Your task to perform on an android device: Clear the cart on ebay. Search for "dell alienware" on ebay, select the first entry, add it to the cart, then select checkout. Image 0: 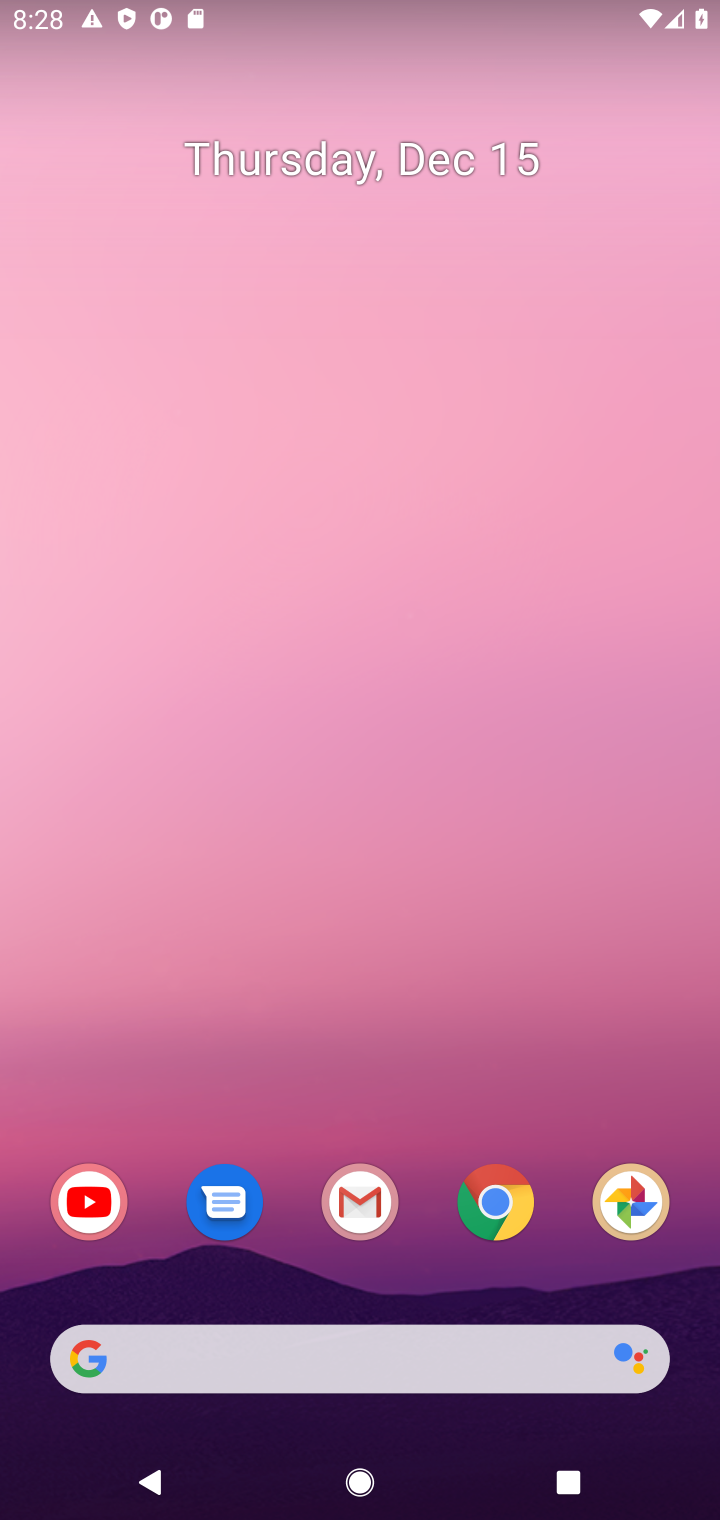
Step 0: click (493, 1218)
Your task to perform on an android device: Clear the cart on ebay. Search for "dell alienware" on ebay, select the first entry, add it to the cart, then select checkout. Image 1: 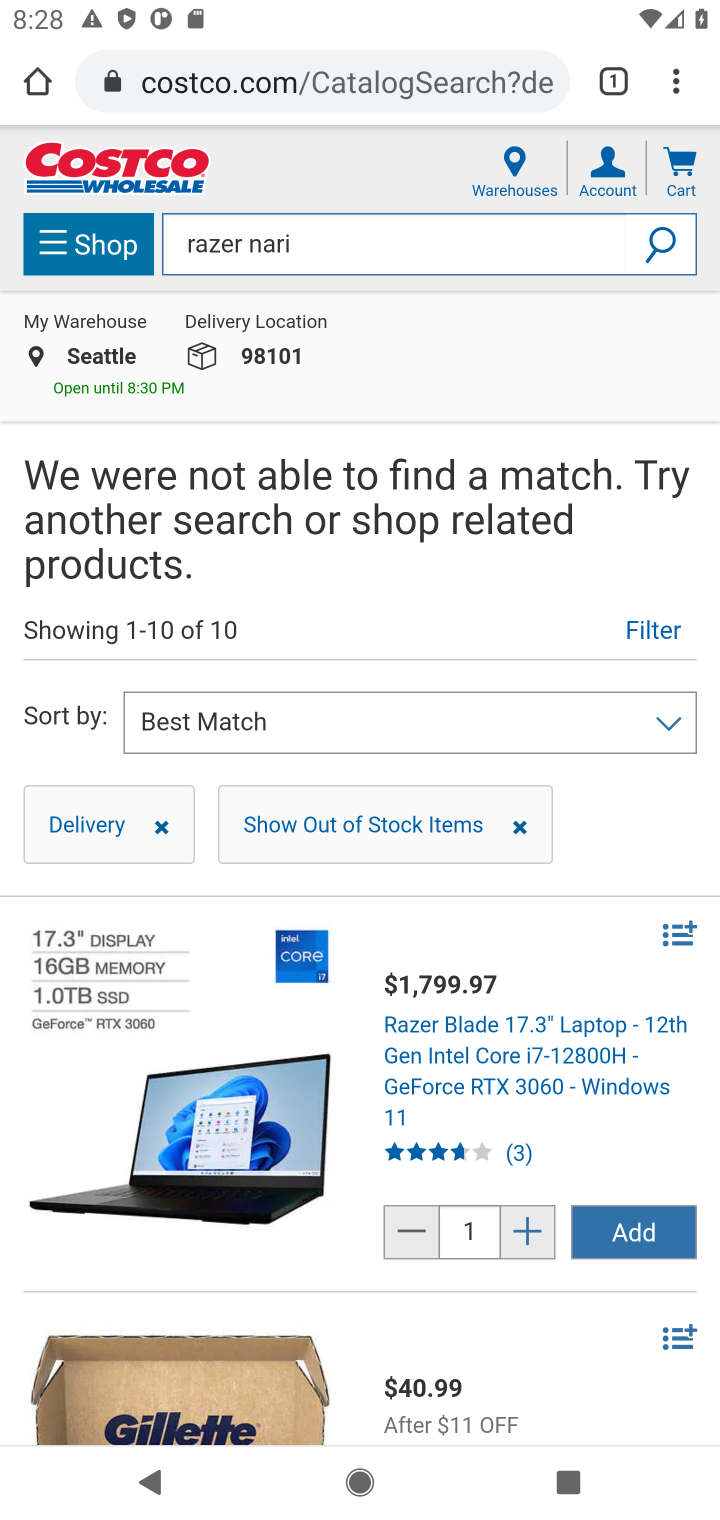
Step 1: click (321, 77)
Your task to perform on an android device: Clear the cart on ebay. Search for "dell alienware" on ebay, select the first entry, add it to the cart, then select checkout. Image 2: 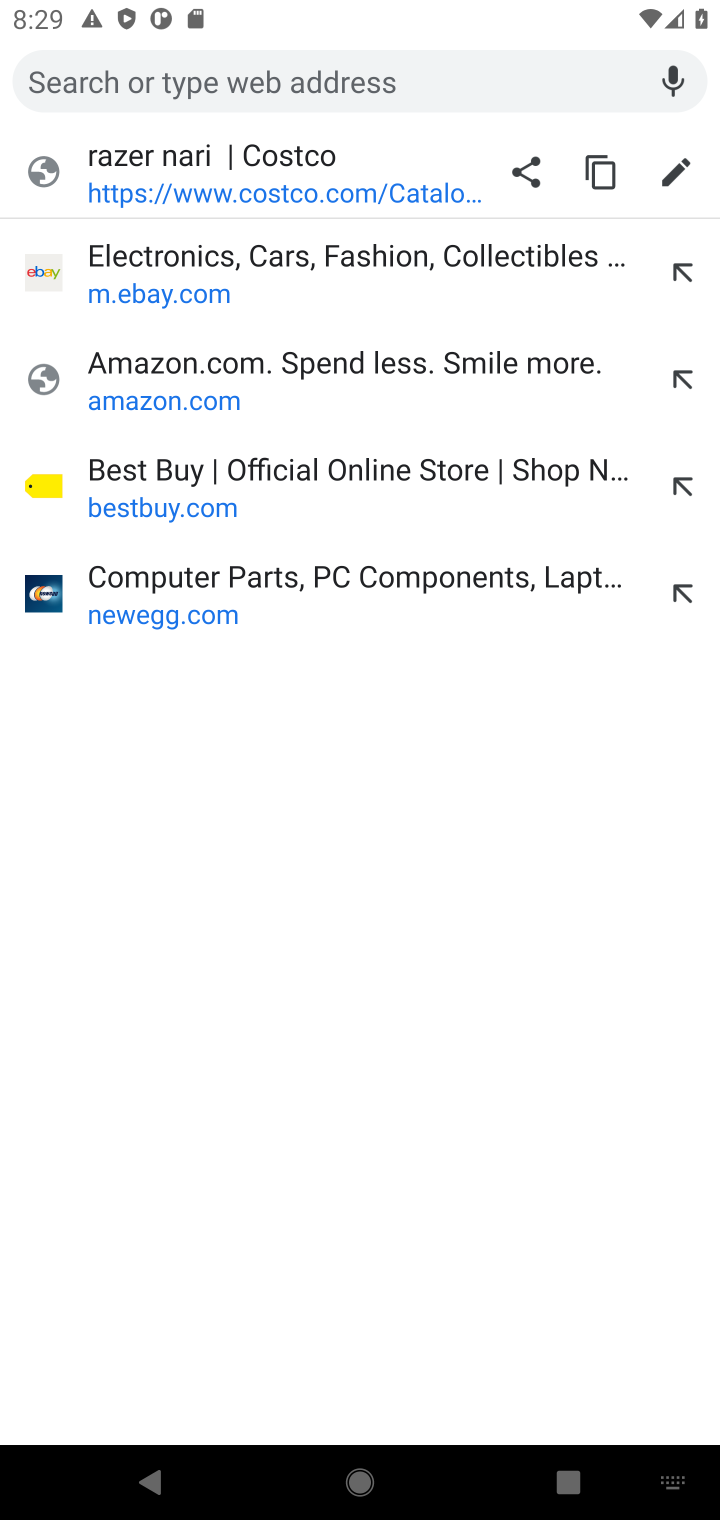
Step 2: click (153, 287)
Your task to perform on an android device: Clear the cart on ebay. Search for "dell alienware" on ebay, select the first entry, add it to the cart, then select checkout. Image 3: 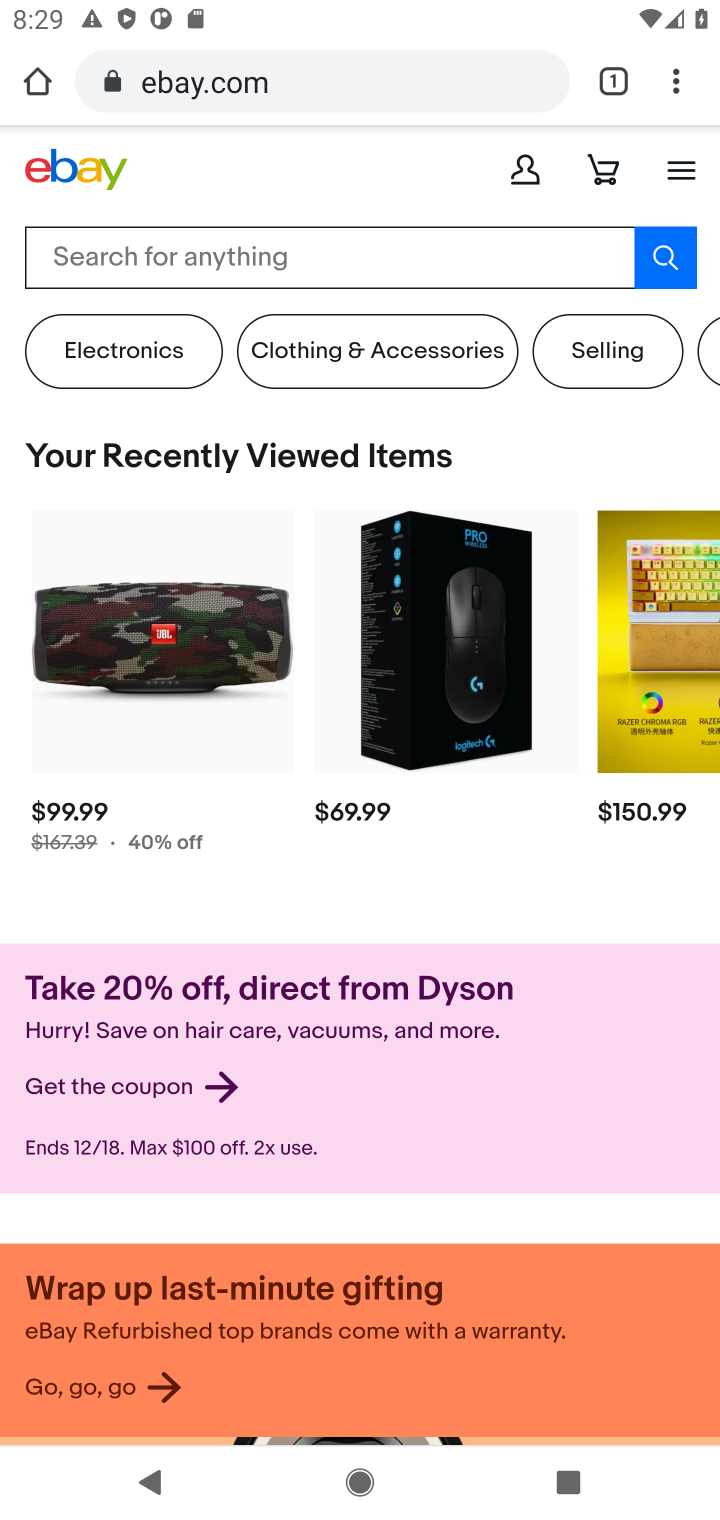
Step 3: click (606, 161)
Your task to perform on an android device: Clear the cart on ebay. Search for "dell alienware" on ebay, select the first entry, add it to the cart, then select checkout. Image 4: 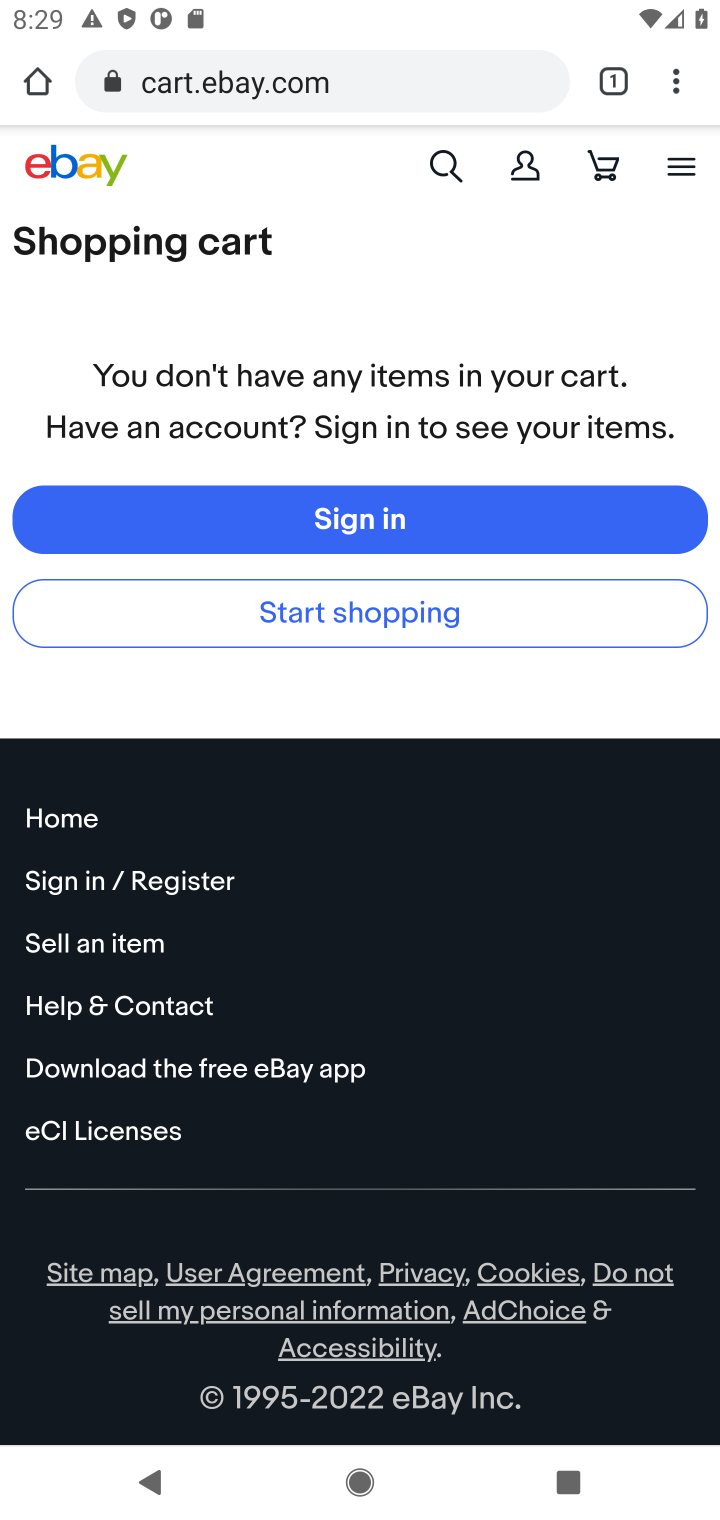
Step 4: click (440, 163)
Your task to perform on an android device: Clear the cart on ebay. Search for "dell alienware" on ebay, select the first entry, add it to the cart, then select checkout. Image 5: 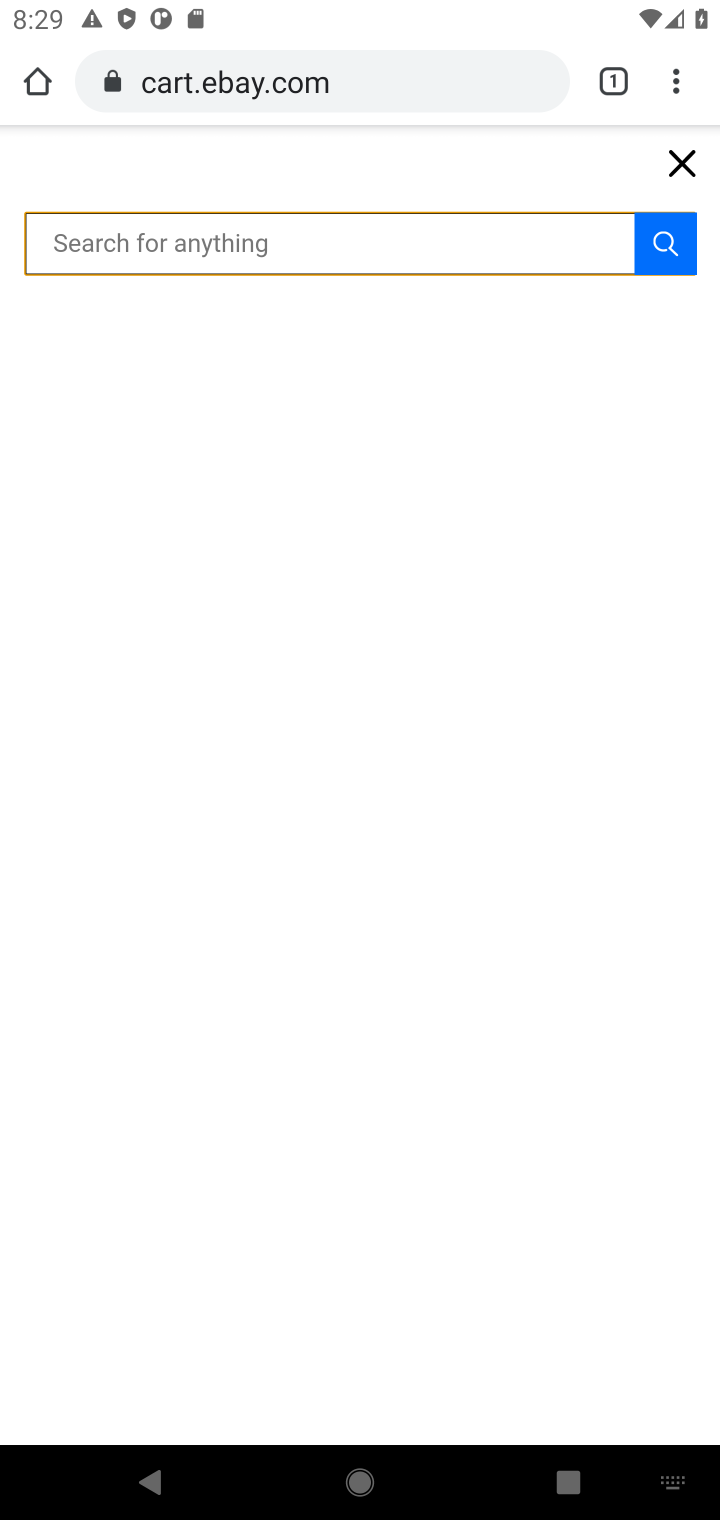
Step 5: type "dell alienware"
Your task to perform on an android device: Clear the cart on ebay. Search for "dell alienware" on ebay, select the first entry, add it to the cart, then select checkout. Image 6: 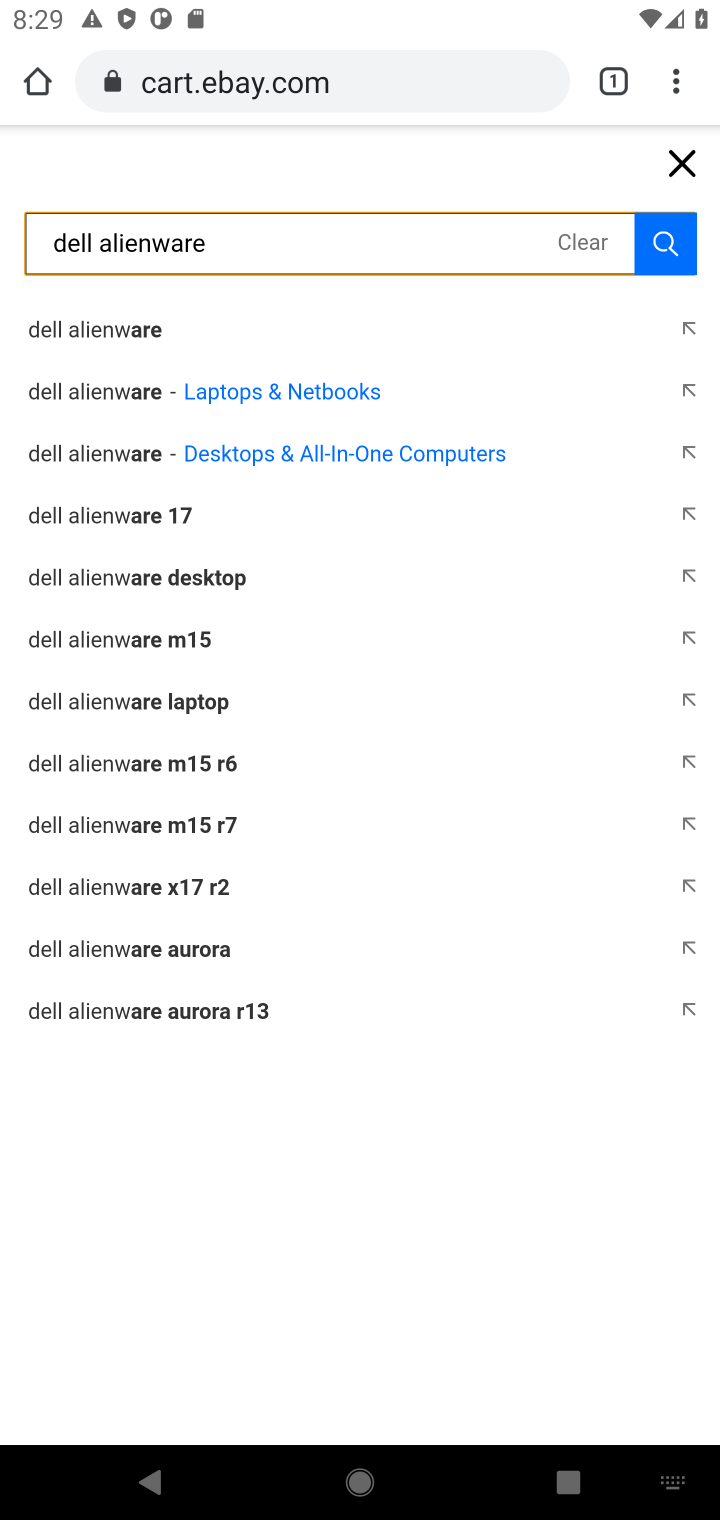
Step 6: click (108, 327)
Your task to perform on an android device: Clear the cart on ebay. Search for "dell alienware" on ebay, select the first entry, add it to the cart, then select checkout. Image 7: 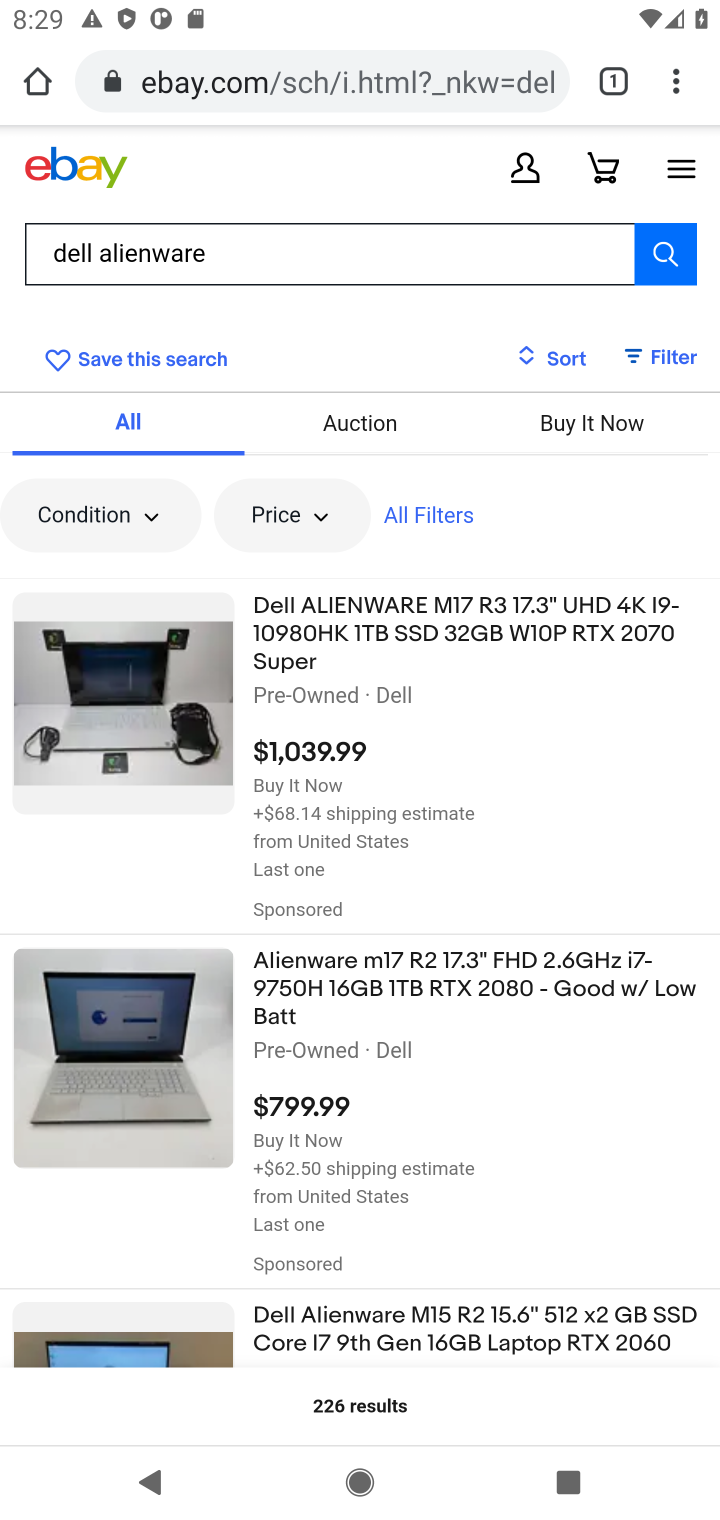
Step 7: click (343, 631)
Your task to perform on an android device: Clear the cart on ebay. Search for "dell alienware" on ebay, select the first entry, add it to the cart, then select checkout. Image 8: 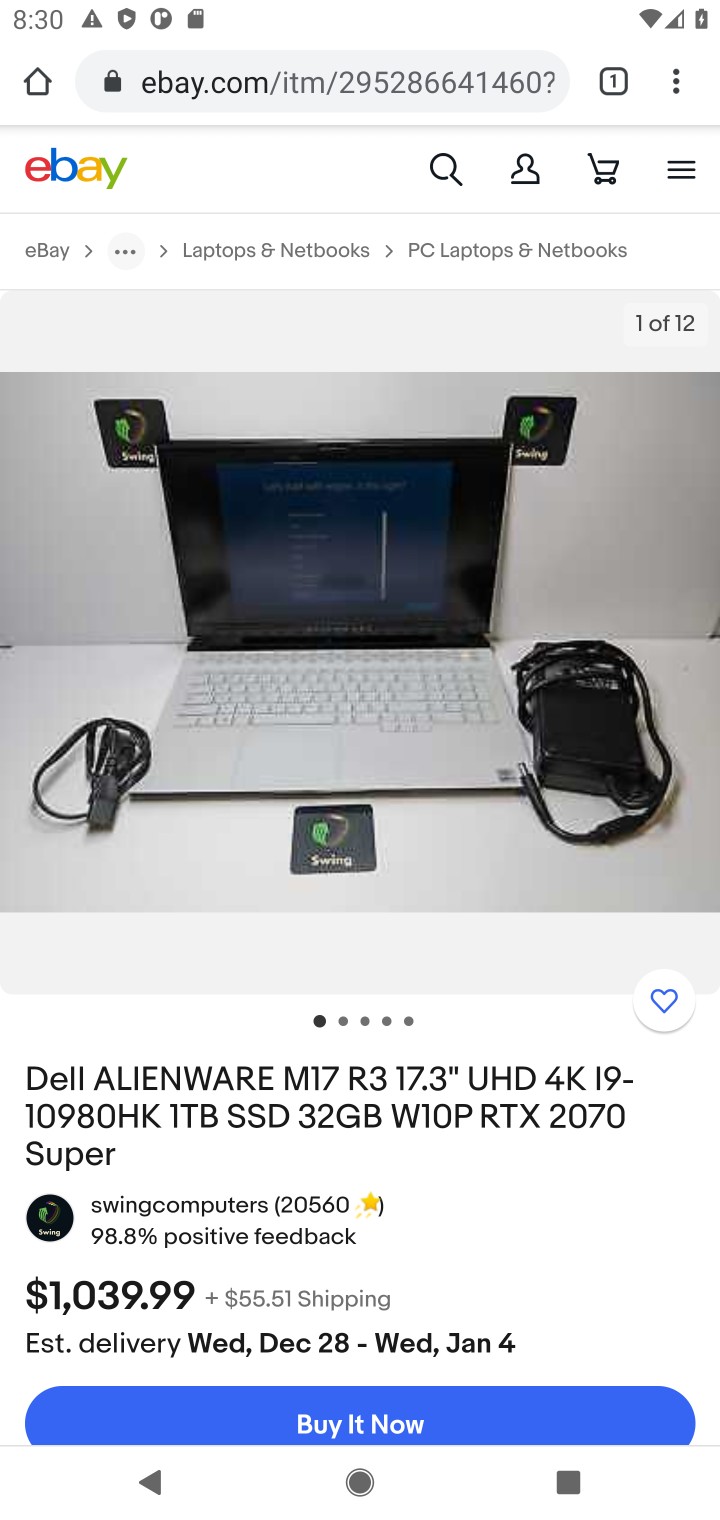
Step 8: drag from (328, 1090) to (301, 446)
Your task to perform on an android device: Clear the cart on ebay. Search for "dell alienware" on ebay, select the first entry, add it to the cart, then select checkout. Image 9: 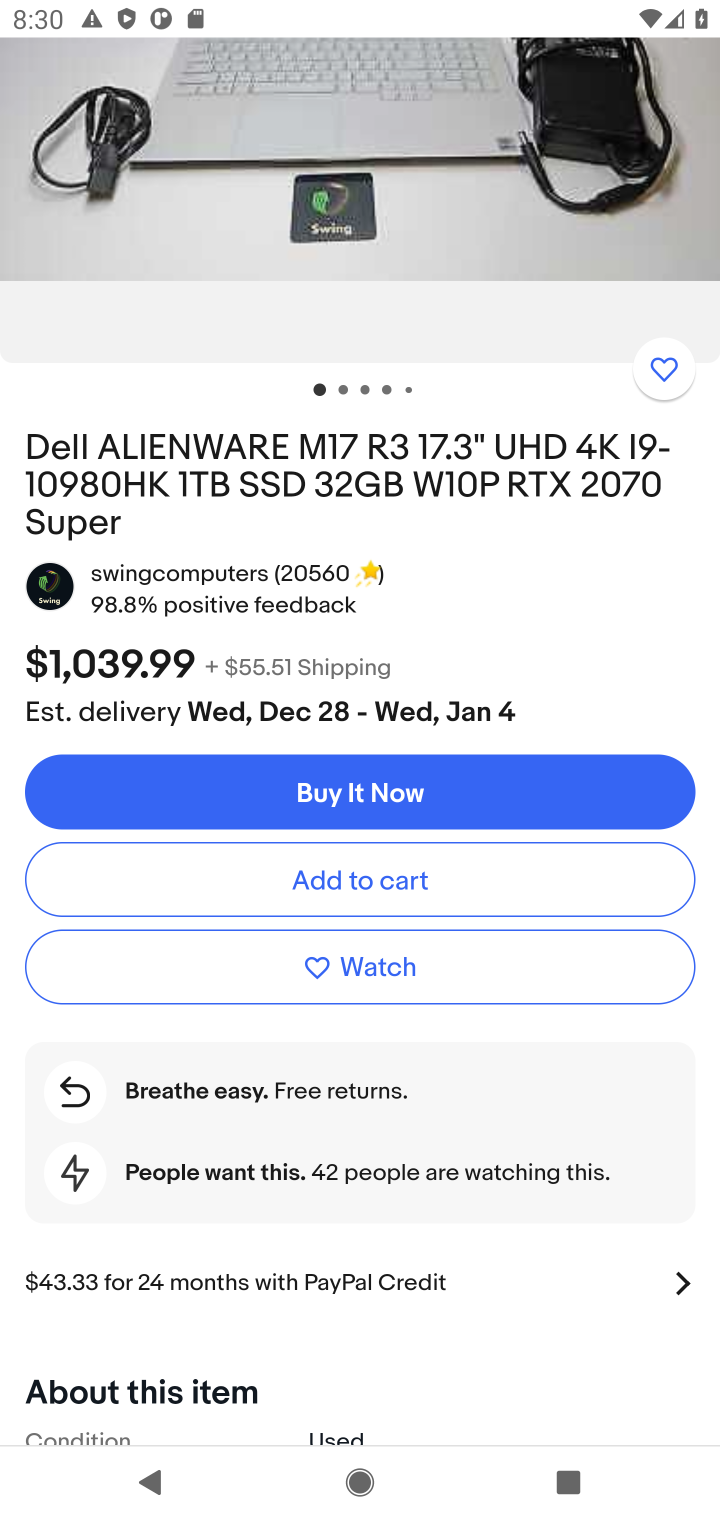
Step 9: click (299, 877)
Your task to perform on an android device: Clear the cart on ebay. Search for "dell alienware" on ebay, select the first entry, add it to the cart, then select checkout. Image 10: 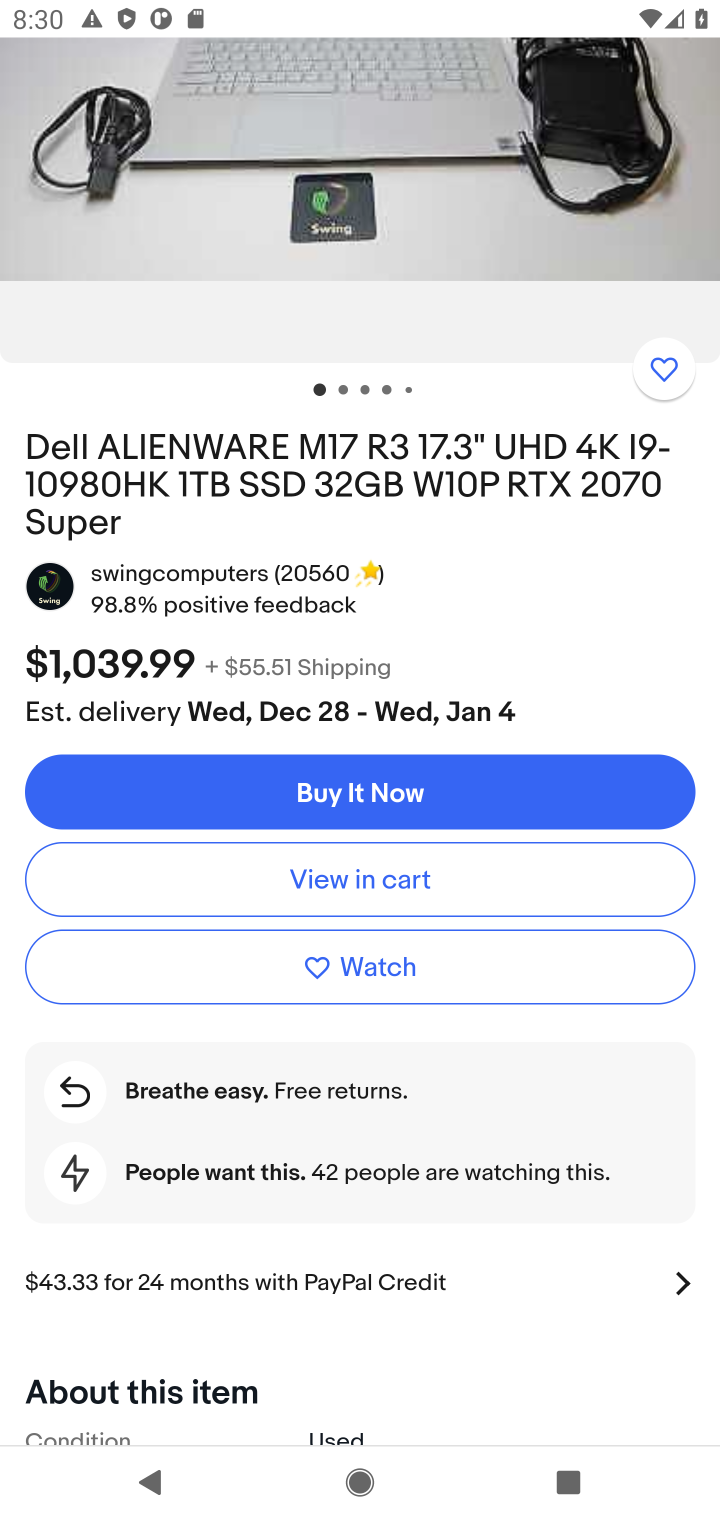
Step 10: click (314, 880)
Your task to perform on an android device: Clear the cart on ebay. Search for "dell alienware" on ebay, select the first entry, add it to the cart, then select checkout. Image 11: 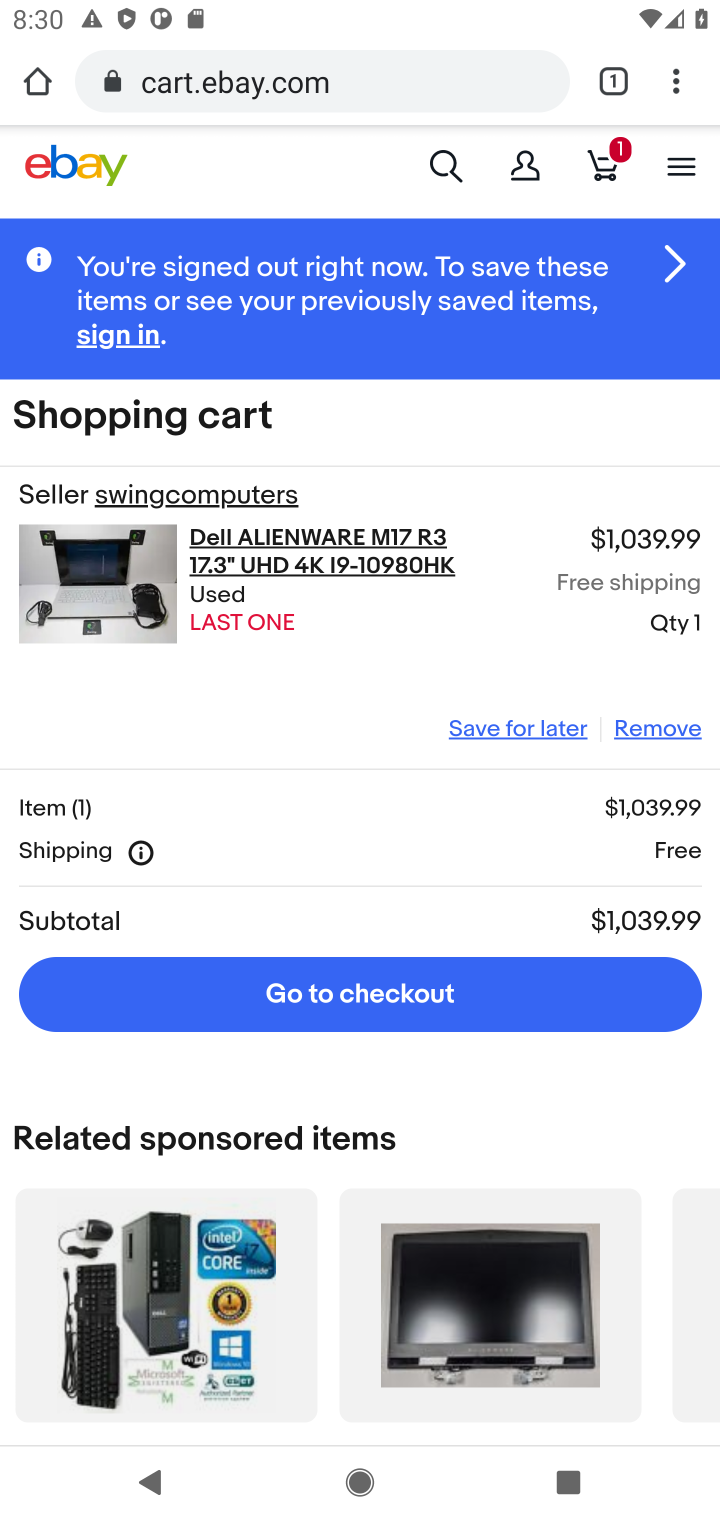
Step 11: click (329, 1000)
Your task to perform on an android device: Clear the cart on ebay. Search for "dell alienware" on ebay, select the first entry, add it to the cart, then select checkout. Image 12: 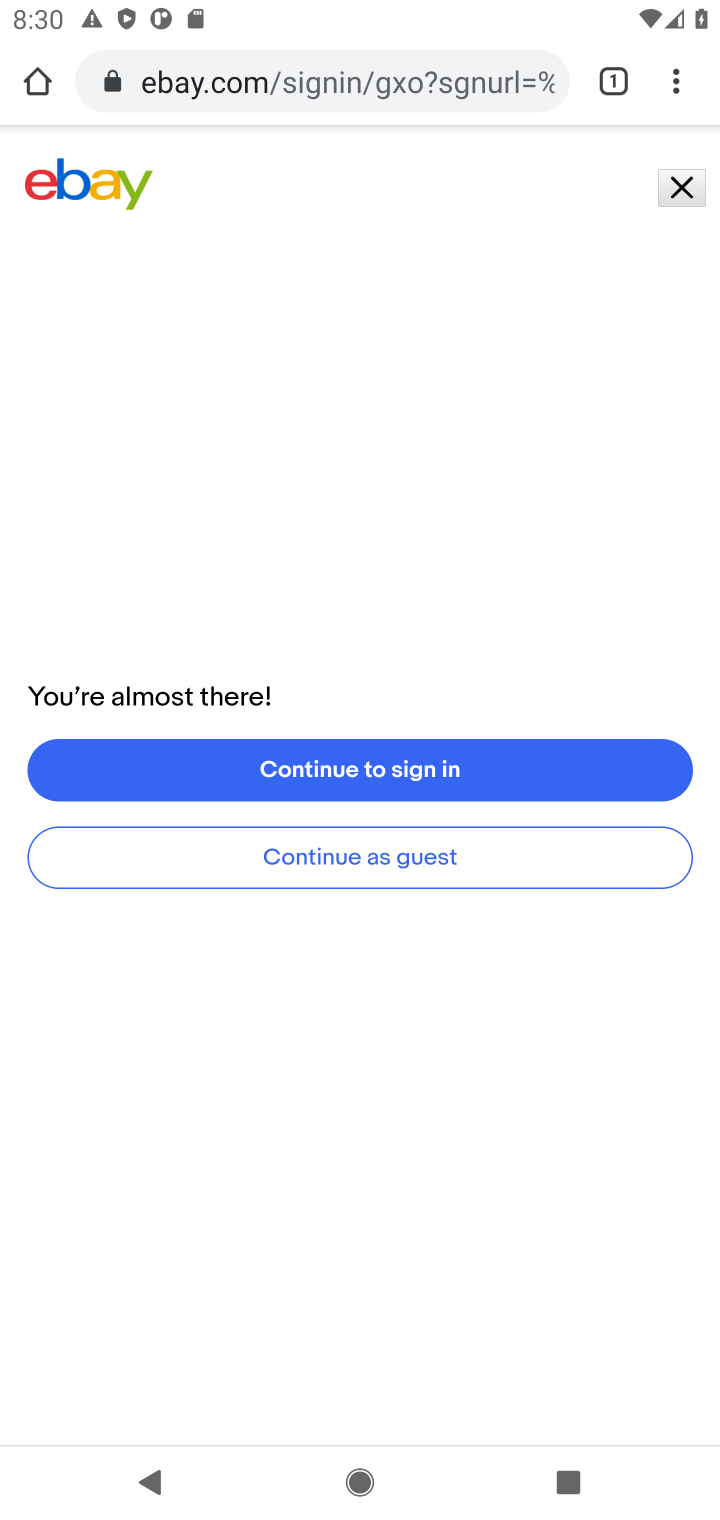
Step 12: task complete